Your task to perform on an android device: uninstall "Spotify: Music and Podcasts" Image 0: 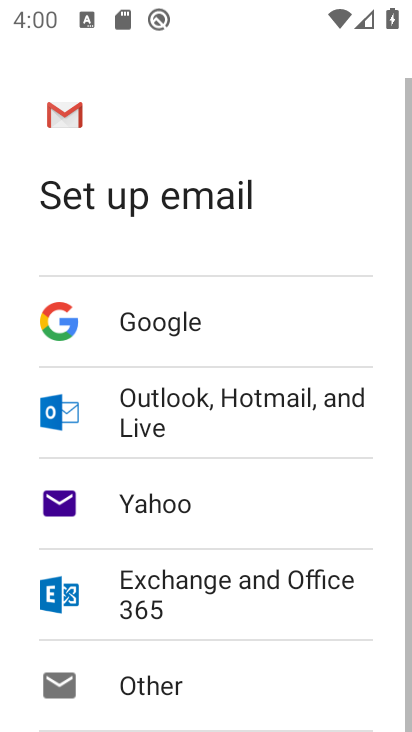
Step 0: press home button
Your task to perform on an android device: uninstall "Spotify: Music and Podcasts" Image 1: 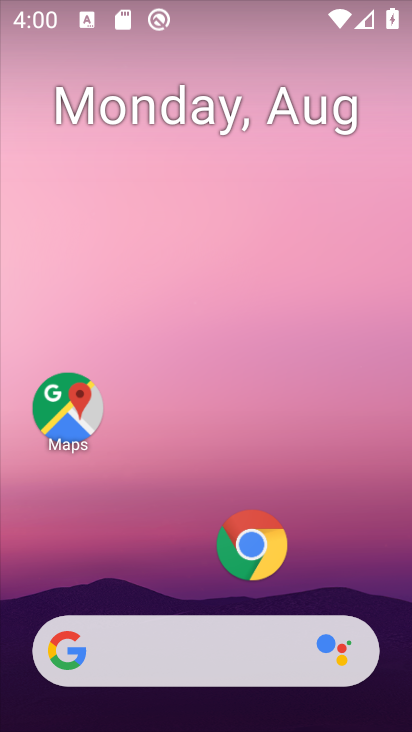
Step 1: drag from (129, 562) to (237, 124)
Your task to perform on an android device: uninstall "Spotify: Music and Podcasts" Image 2: 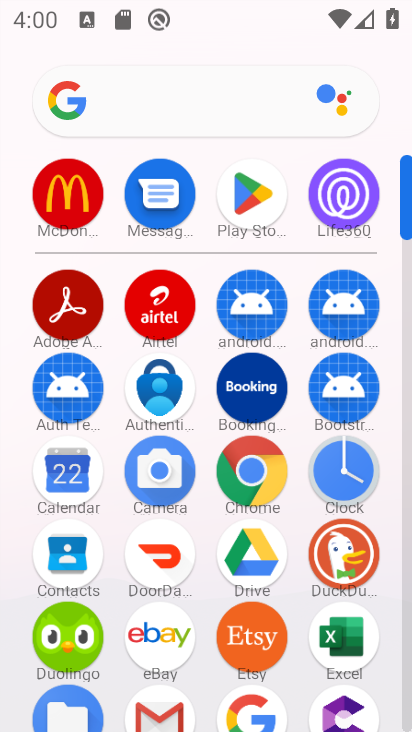
Step 2: drag from (179, 644) to (221, 68)
Your task to perform on an android device: uninstall "Spotify: Music and Podcasts" Image 3: 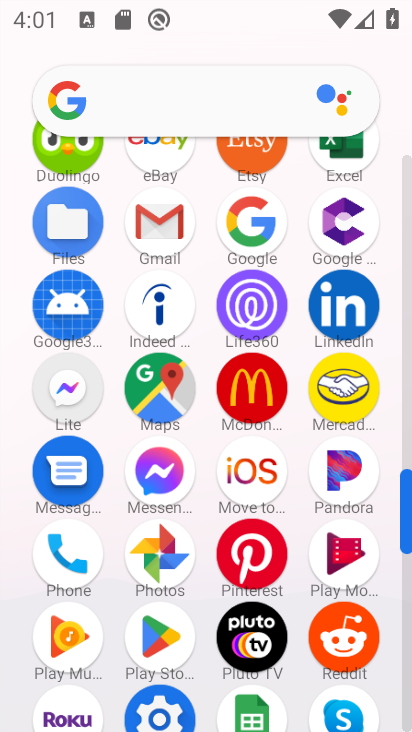
Step 3: drag from (158, 658) to (241, 113)
Your task to perform on an android device: uninstall "Spotify: Music and Podcasts" Image 4: 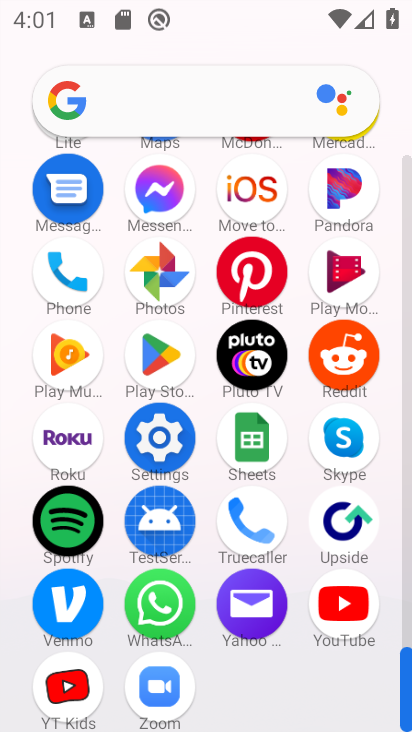
Step 4: click (92, 524)
Your task to perform on an android device: uninstall "Spotify: Music and Podcasts" Image 5: 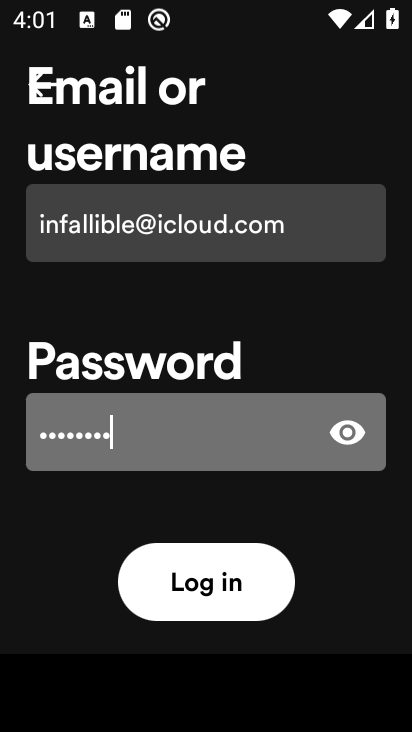
Step 5: press back button
Your task to perform on an android device: uninstall "Spotify: Music and Podcasts" Image 6: 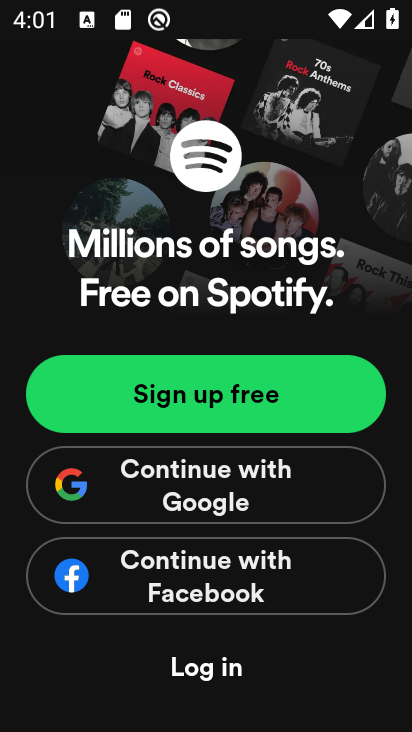
Step 6: press home button
Your task to perform on an android device: uninstall "Spotify: Music and Podcasts" Image 7: 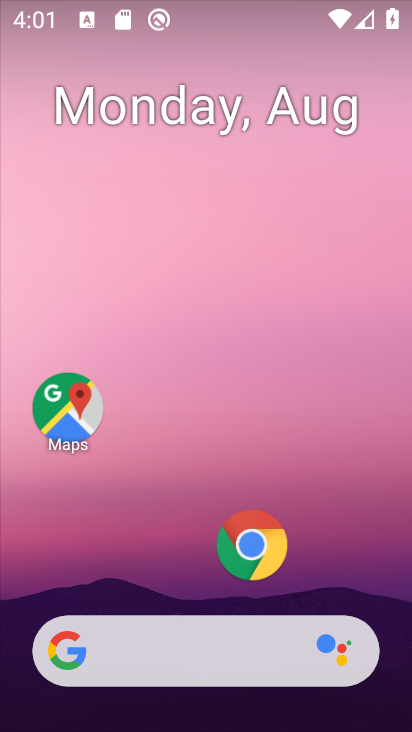
Step 7: drag from (177, 504) to (247, 13)
Your task to perform on an android device: uninstall "Spotify: Music and Podcasts" Image 8: 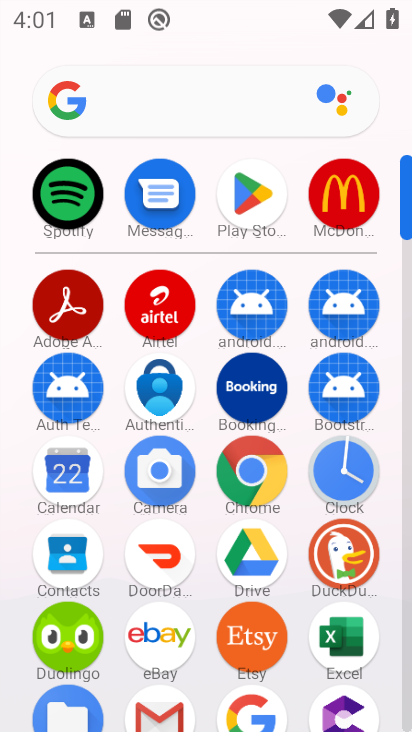
Step 8: click (238, 192)
Your task to perform on an android device: uninstall "Spotify: Music and Podcasts" Image 9: 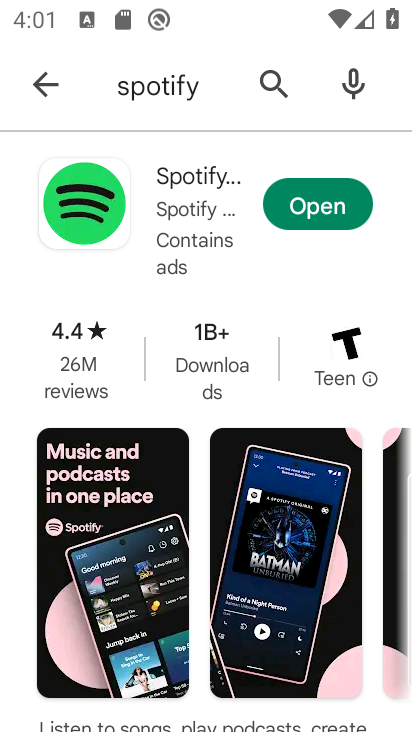
Step 9: click (174, 193)
Your task to perform on an android device: uninstall "Spotify: Music and Podcasts" Image 10: 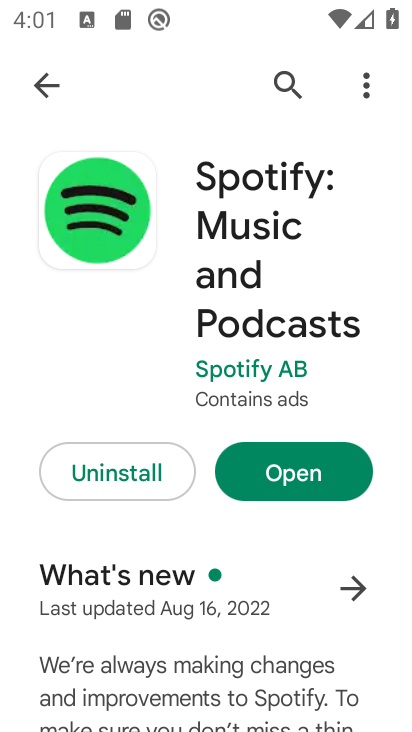
Step 10: click (90, 471)
Your task to perform on an android device: uninstall "Spotify: Music and Podcasts" Image 11: 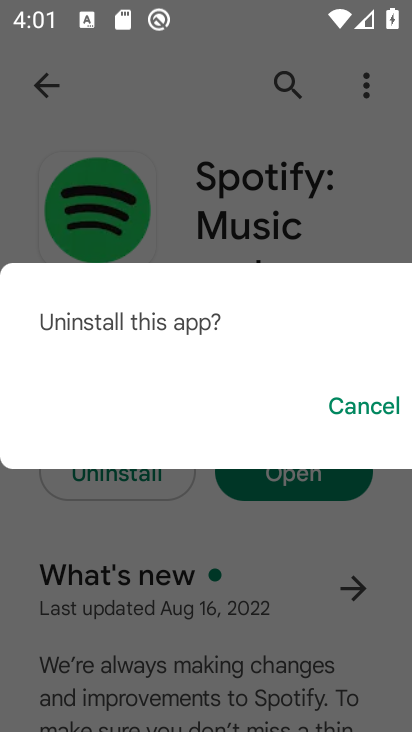
Step 11: task complete